Your task to perform on an android device: turn off notifications settings in the gmail app Image 0: 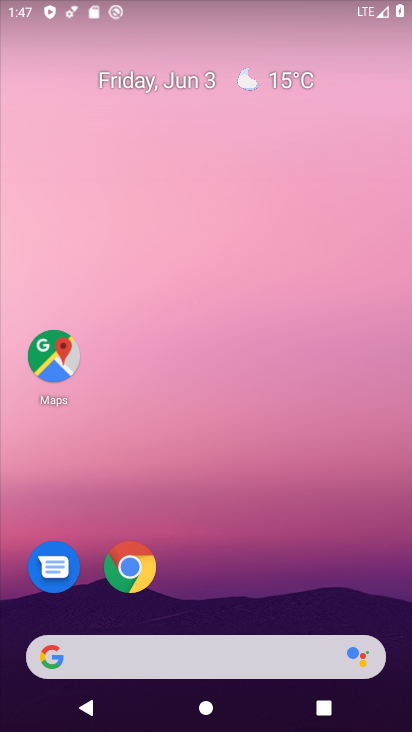
Step 0: drag from (185, 636) to (252, 344)
Your task to perform on an android device: turn off notifications settings in the gmail app Image 1: 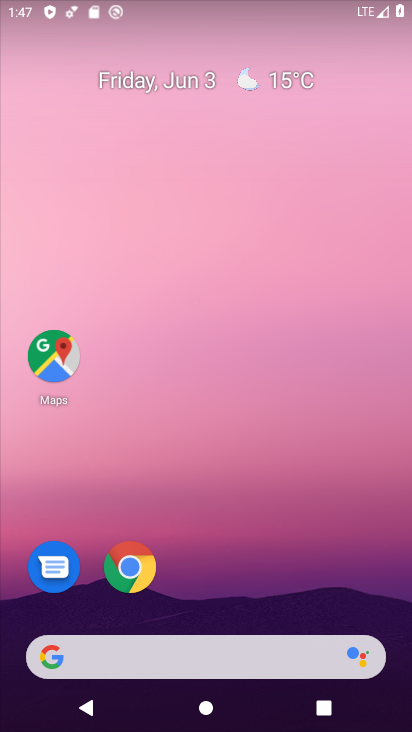
Step 1: drag from (275, 623) to (380, 15)
Your task to perform on an android device: turn off notifications settings in the gmail app Image 2: 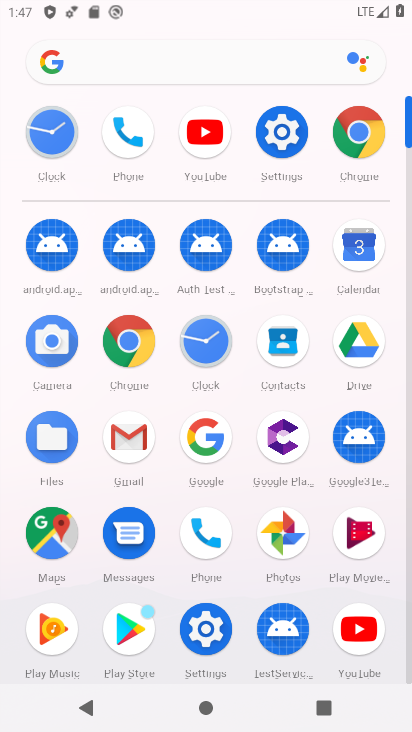
Step 2: click (132, 443)
Your task to perform on an android device: turn off notifications settings in the gmail app Image 3: 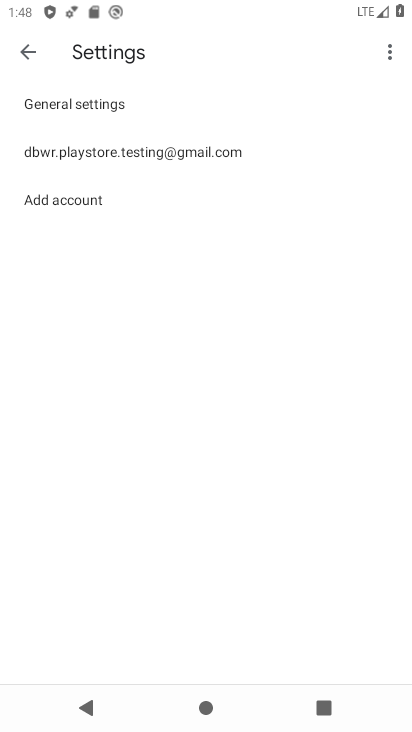
Step 3: click (105, 117)
Your task to perform on an android device: turn off notifications settings in the gmail app Image 4: 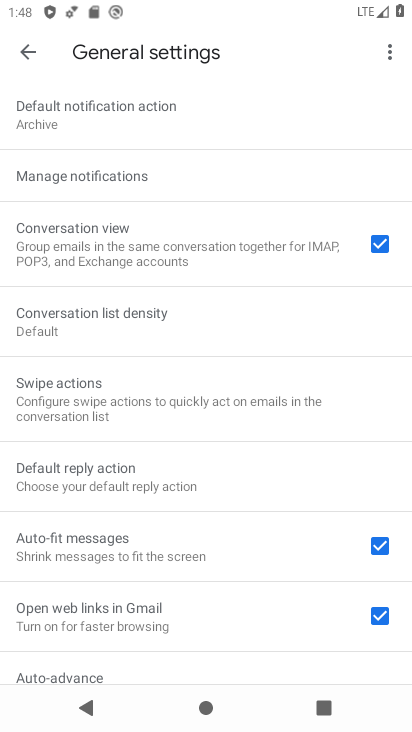
Step 4: click (107, 177)
Your task to perform on an android device: turn off notifications settings in the gmail app Image 5: 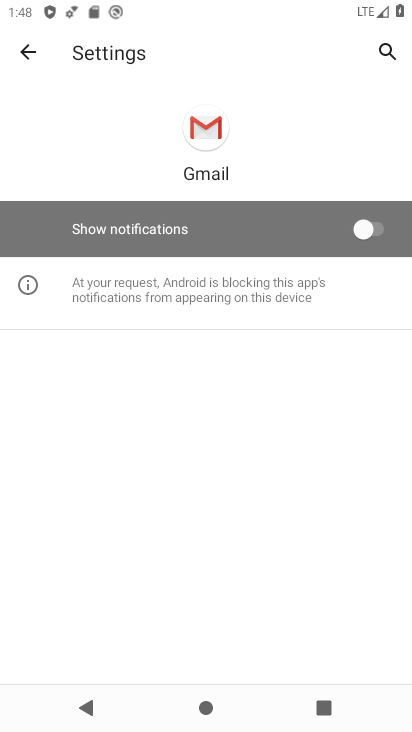
Step 5: task complete